Your task to perform on an android device: turn off airplane mode Image 0: 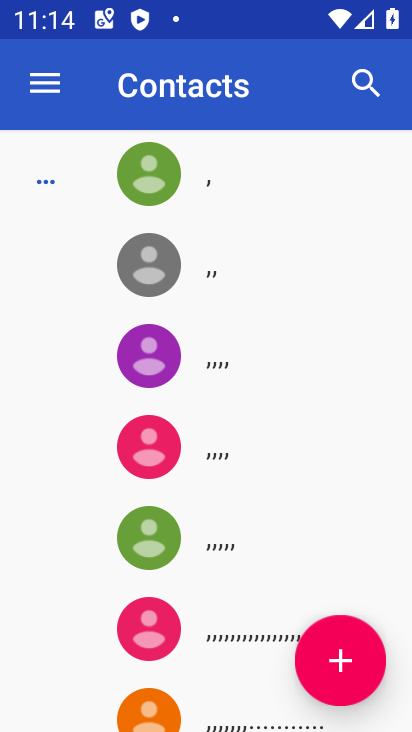
Step 0: press home button
Your task to perform on an android device: turn off airplane mode Image 1: 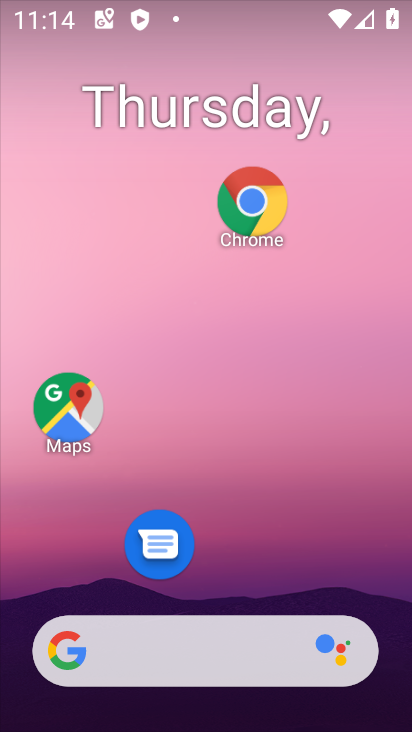
Step 1: task complete